Your task to perform on an android device: turn off sleep mode Image 0: 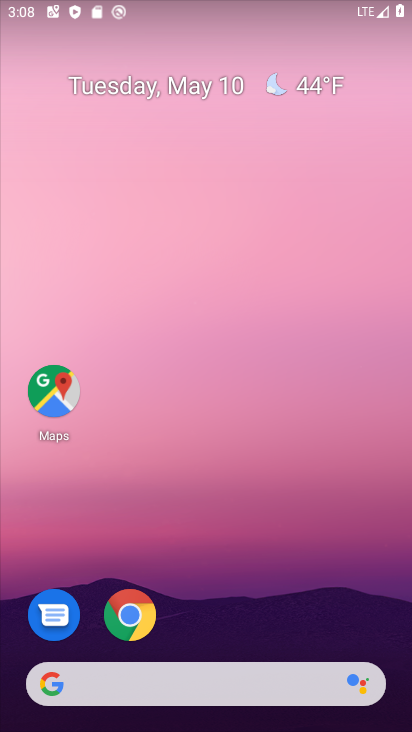
Step 0: drag from (266, 589) to (326, 87)
Your task to perform on an android device: turn off sleep mode Image 1: 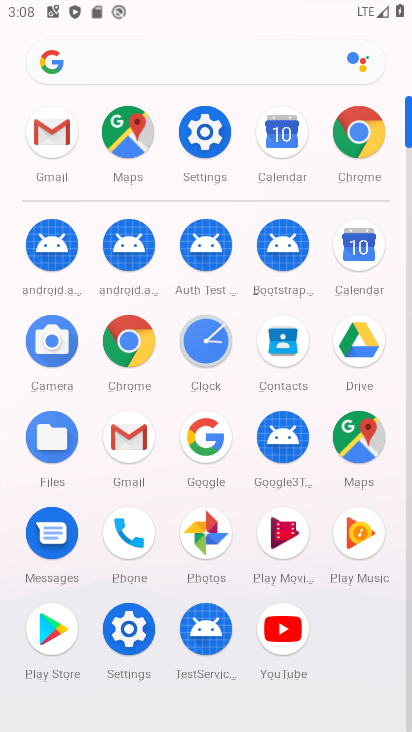
Step 1: click (179, 152)
Your task to perform on an android device: turn off sleep mode Image 2: 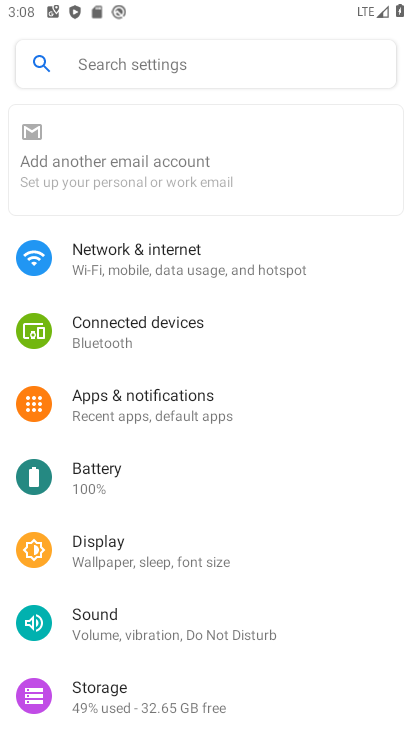
Step 2: click (188, 128)
Your task to perform on an android device: turn off sleep mode Image 3: 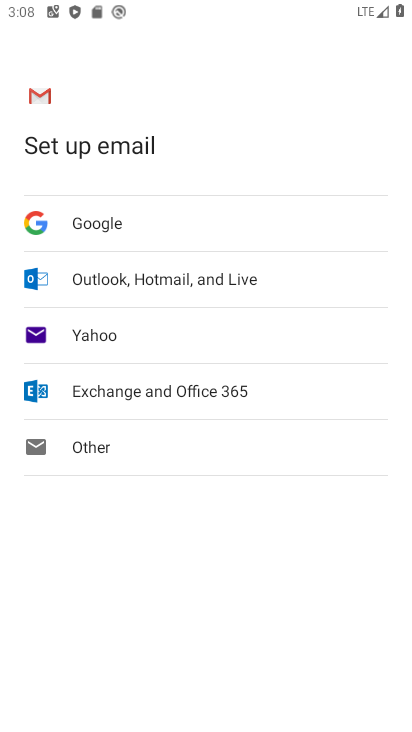
Step 3: task complete